Your task to perform on an android device: turn on airplane mode Image 0: 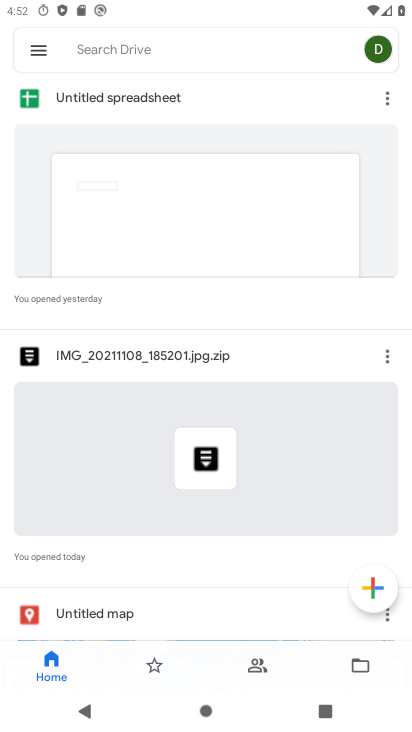
Step 0: press home button
Your task to perform on an android device: turn on airplane mode Image 1: 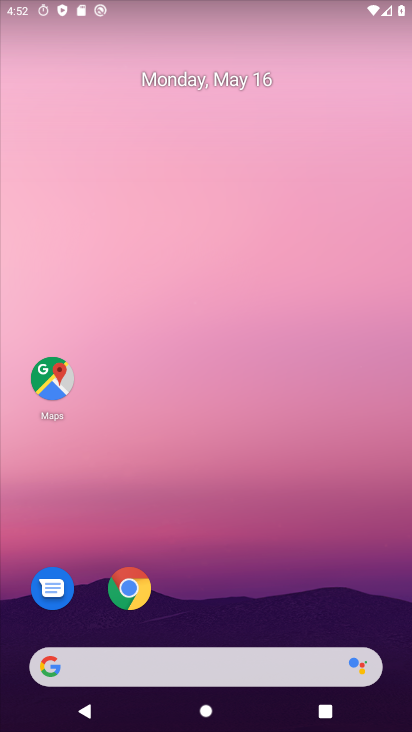
Step 1: drag from (250, 622) to (231, 211)
Your task to perform on an android device: turn on airplane mode Image 2: 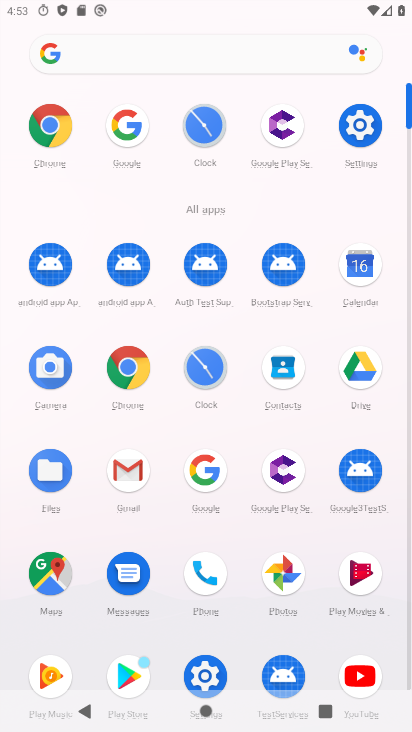
Step 2: click (366, 124)
Your task to perform on an android device: turn on airplane mode Image 3: 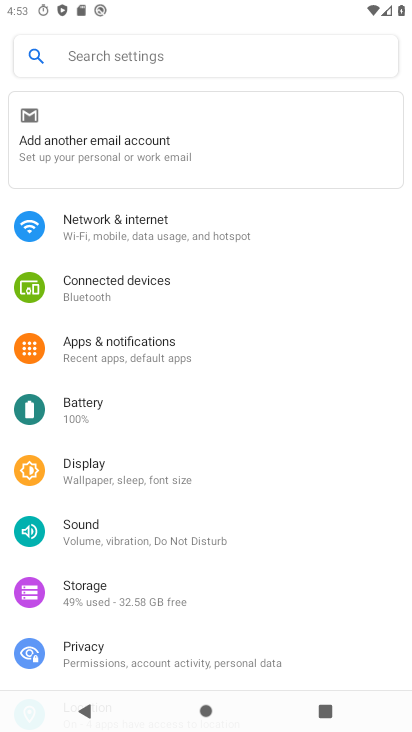
Step 3: click (278, 248)
Your task to perform on an android device: turn on airplane mode Image 4: 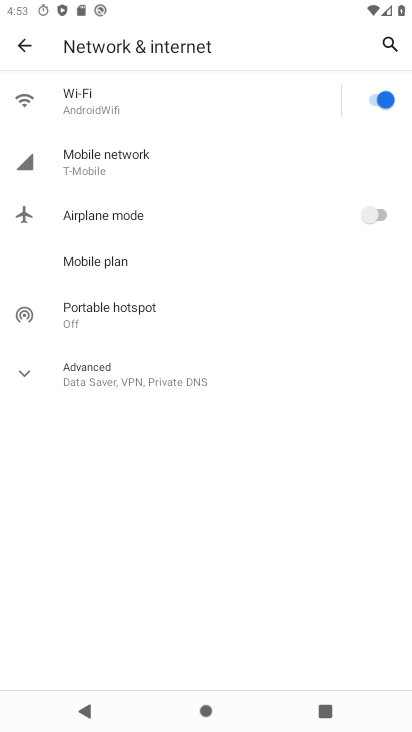
Step 4: click (373, 226)
Your task to perform on an android device: turn on airplane mode Image 5: 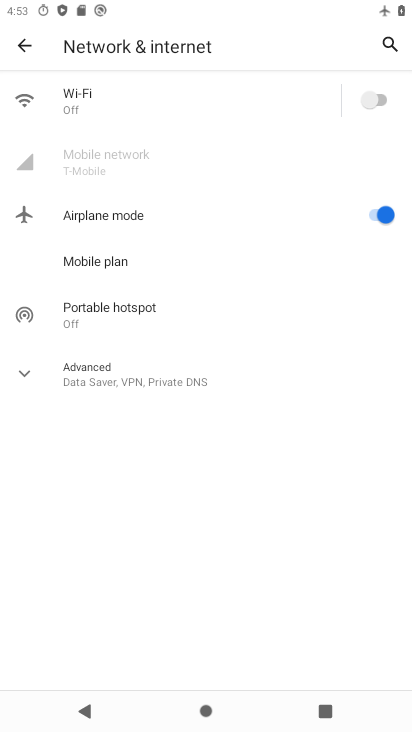
Step 5: task complete